Your task to perform on an android device: change keyboard looks Image 0: 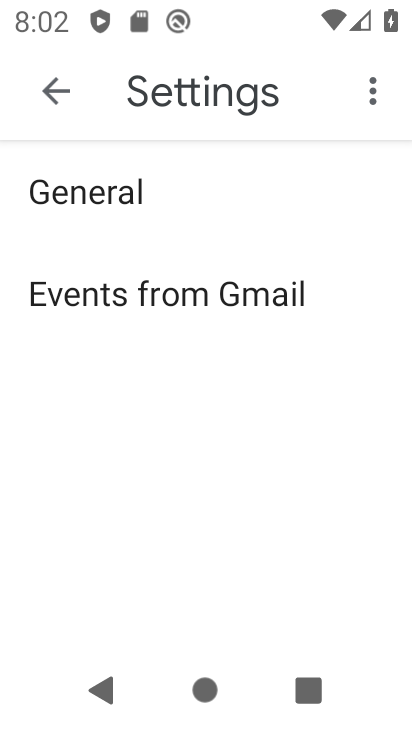
Step 0: press back button
Your task to perform on an android device: change keyboard looks Image 1: 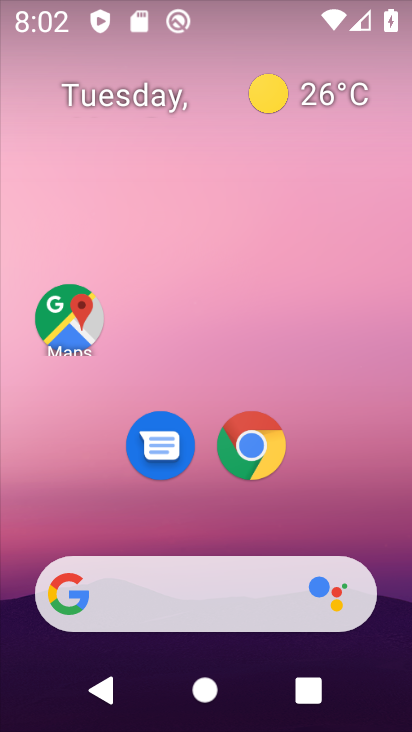
Step 1: drag from (323, 509) to (298, 192)
Your task to perform on an android device: change keyboard looks Image 2: 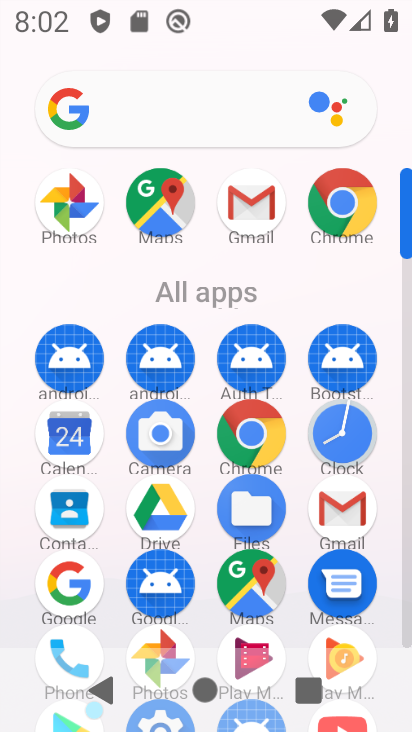
Step 2: drag from (116, 483) to (128, 290)
Your task to perform on an android device: change keyboard looks Image 3: 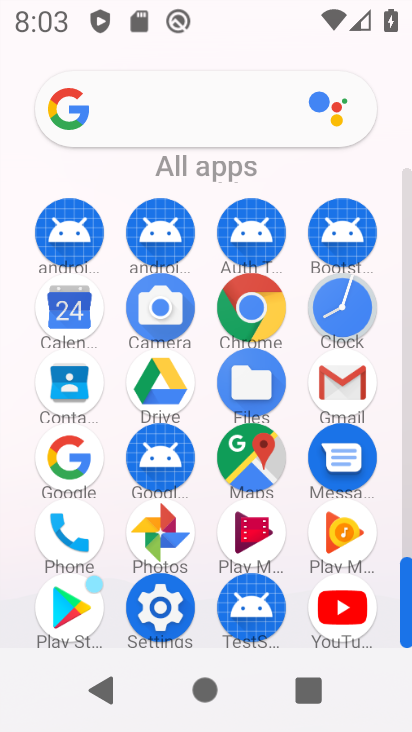
Step 3: click (161, 607)
Your task to perform on an android device: change keyboard looks Image 4: 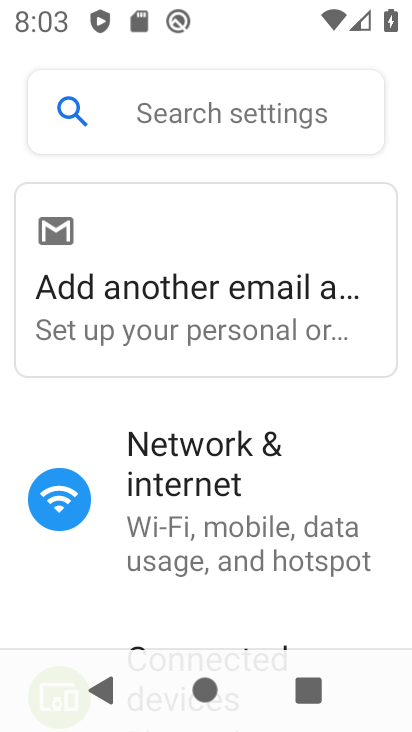
Step 4: drag from (302, 500) to (289, 382)
Your task to perform on an android device: change keyboard looks Image 5: 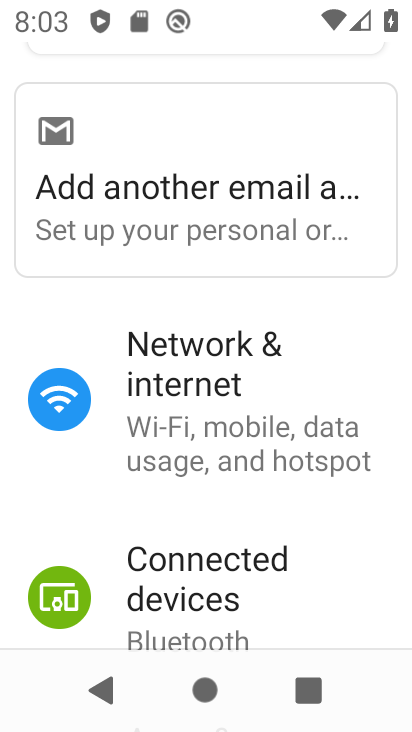
Step 5: drag from (206, 504) to (259, 383)
Your task to perform on an android device: change keyboard looks Image 6: 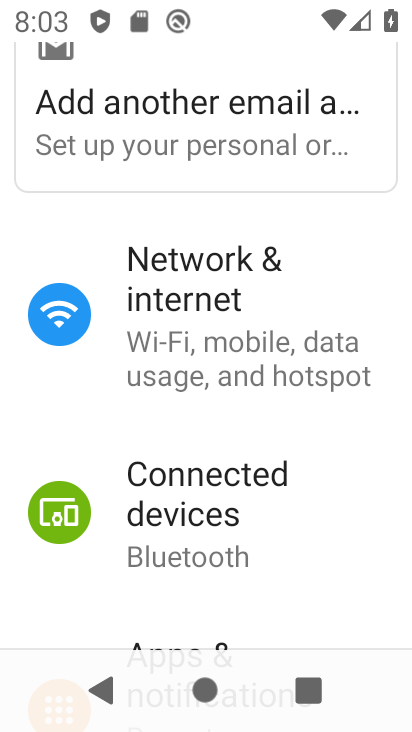
Step 6: drag from (259, 550) to (282, 408)
Your task to perform on an android device: change keyboard looks Image 7: 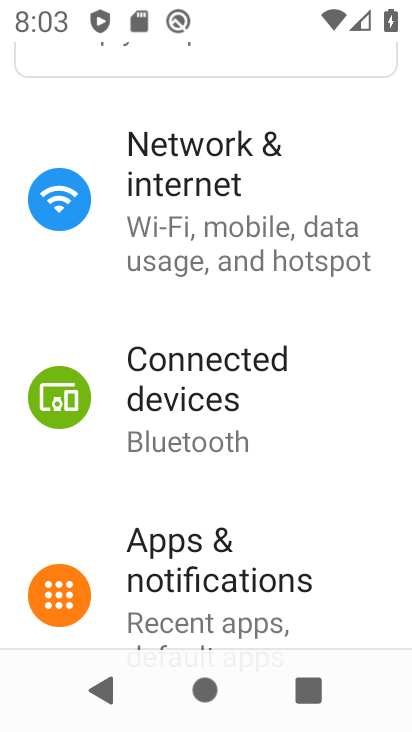
Step 7: drag from (182, 491) to (242, 382)
Your task to perform on an android device: change keyboard looks Image 8: 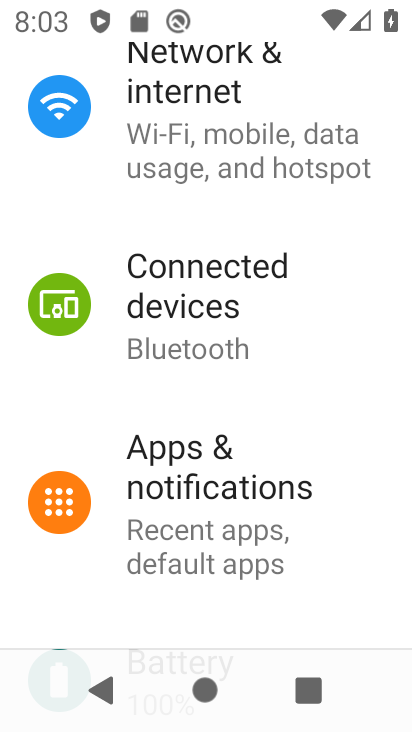
Step 8: drag from (178, 597) to (292, 465)
Your task to perform on an android device: change keyboard looks Image 9: 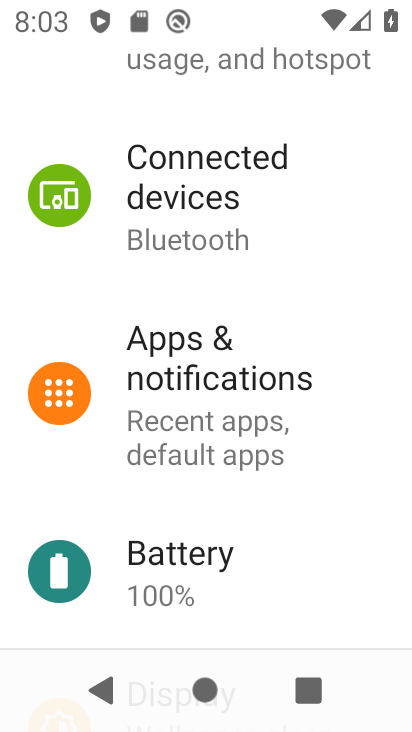
Step 9: drag from (186, 512) to (309, 375)
Your task to perform on an android device: change keyboard looks Image 10: 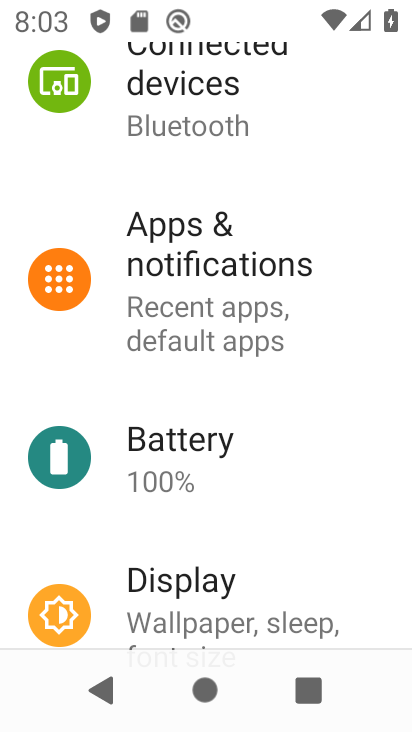
Step 10: drag from (183, 537) to (309, 376)
Your task to perform on an android device: change keyboard looks Image 11: 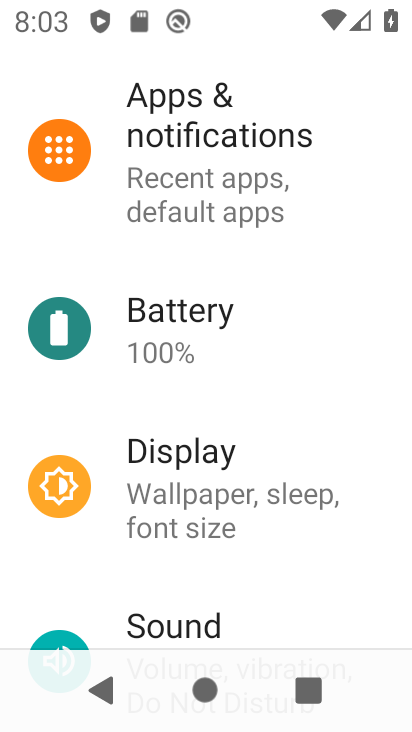
Step 11: drag from (173, 562) to (253, 465)
Your task to perform on an android device: change keyboard looks Image 12: 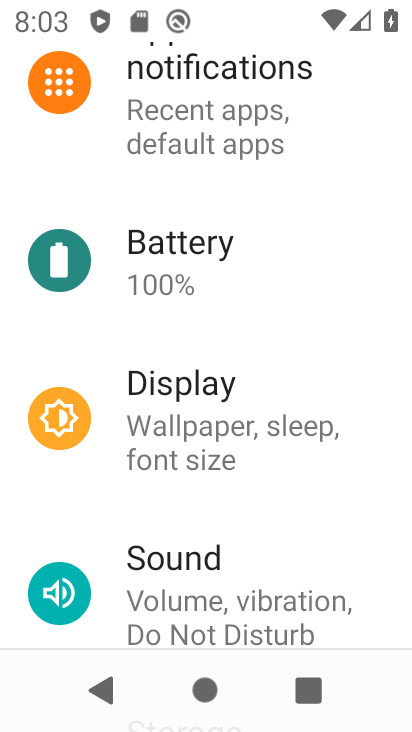
Step 12: drag from (189, 526) to (282, 382)
Your task to perform on an android device: change keyboard looks Image 13: 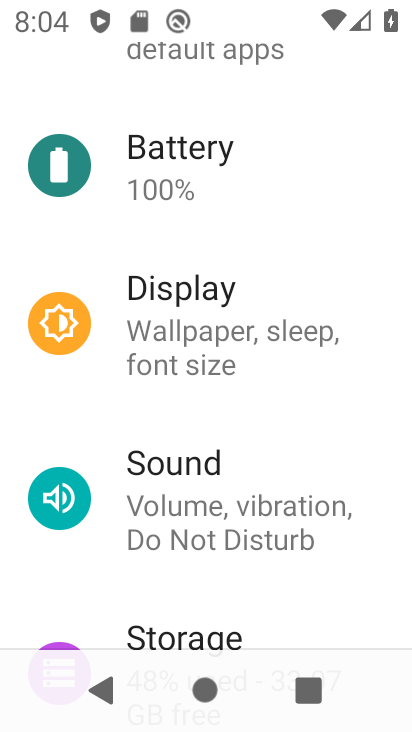
Step 13: drag from (180, 583) to (284, 448)
Your task to perform on an android device: change keyboard looks Image 14: 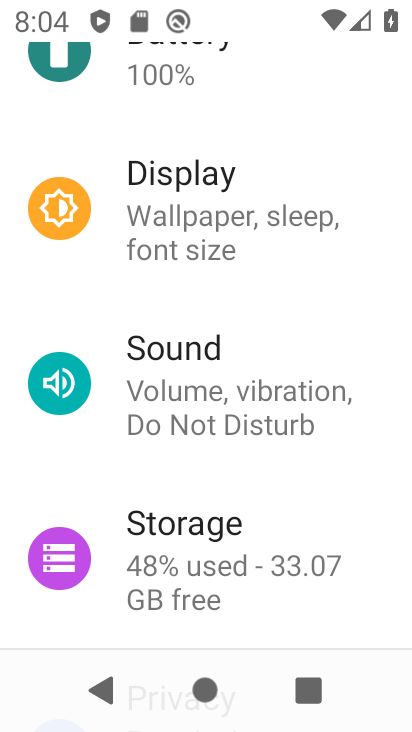
Step 14: drag from (245, 605) to (279, 448)
Your task to perform on an android device: change keyboard looks Image 15: 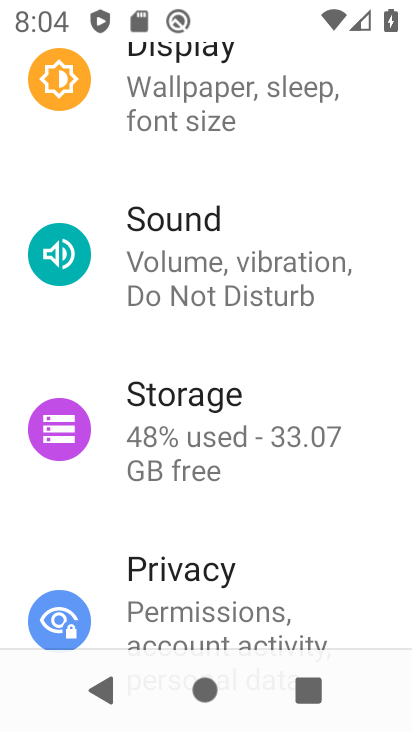
Step 15: drag from (186, 522) to (302, 382)
Your task to perform on an android device: change keyboard looks Image 16: 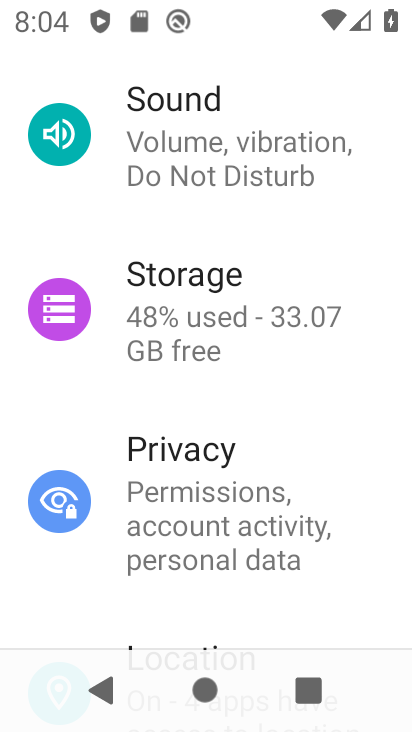
Step 16: drag from (174, 590) to (266, 451)
Your task to perform on an android device: change keyboard looks Image 17: 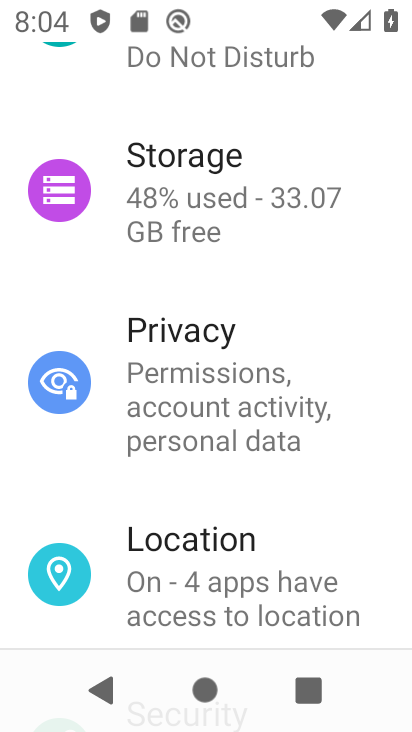
Step 17: drag from (156, 485) to (232, 367)
Your task to perform on an android device: change keyboard looks Image 18: 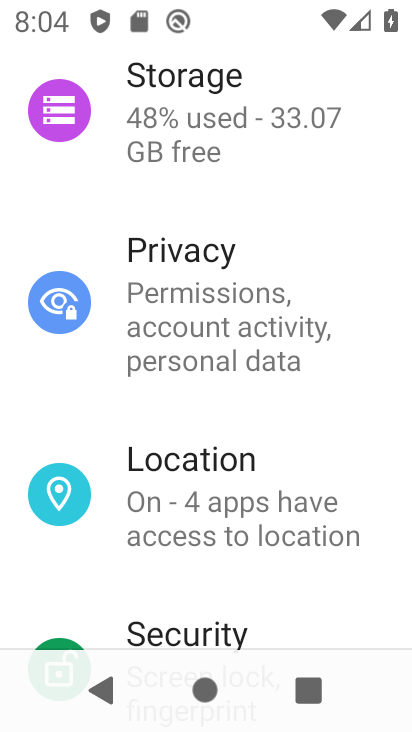
Step 18: drag from (210, 426) to (298, 313)
Your task to perform on an android device: change keyboard looks Image 19: 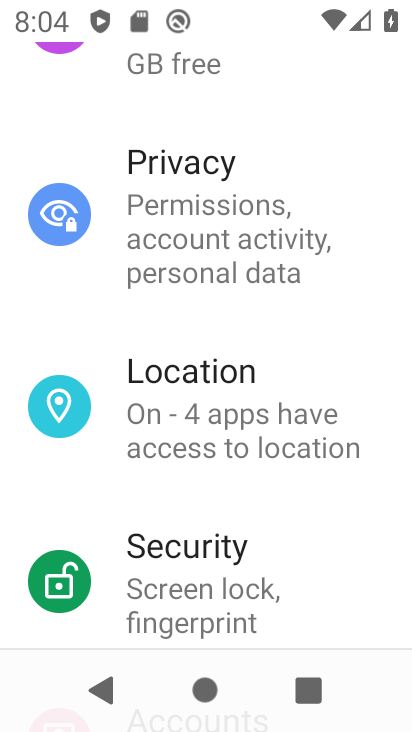
Step 19: drag from (171, 491) to (259, 376)
Your task to perform on an android device: change keyboard looks Image 20: 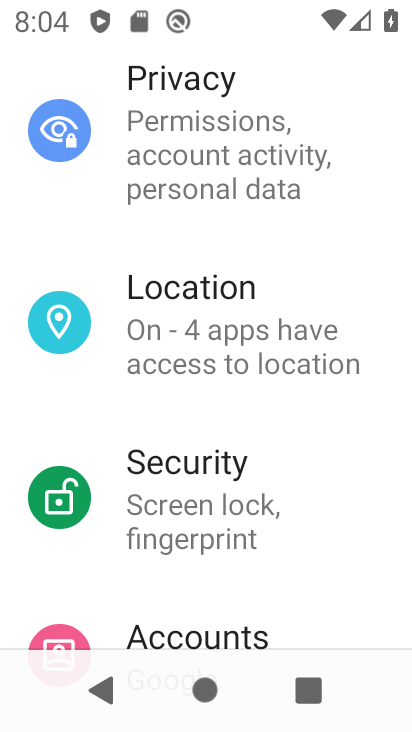
Step 20: drag from (189, 576) to (283, 453)
Your task to perform on an android device: change keyboard looks Image 21: 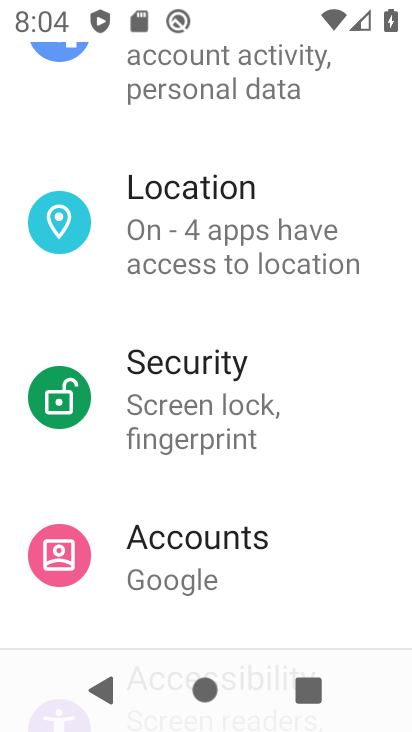
Step 21: drag from (192, 514) to (288, 404)
Your task to perform on an android device: change keyboard looks Image 22: 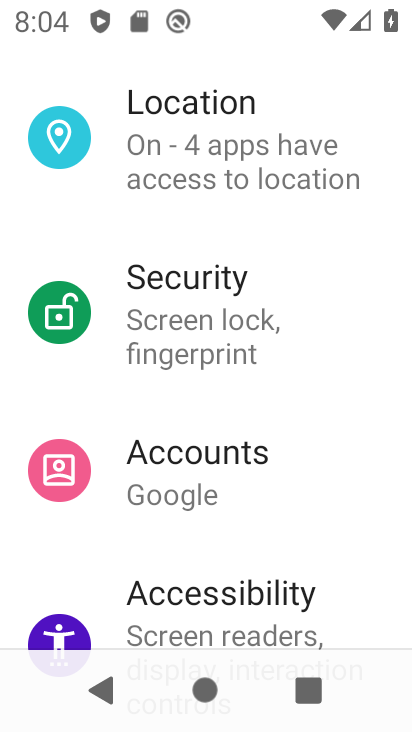
Step 22: drag from (157, 546) to (264, 386)
Your task to perform on an android device: change keyboard looks Image 23: 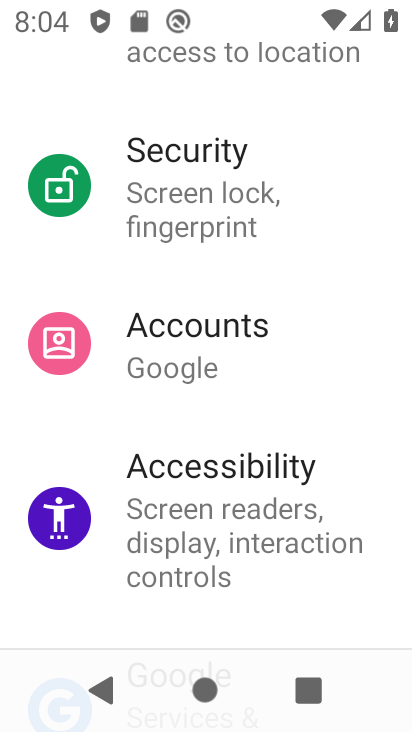
Step 23: drag from (157, 590) to (263, 451)
Your task to perform on an android device: change keyboard looks Image 24: 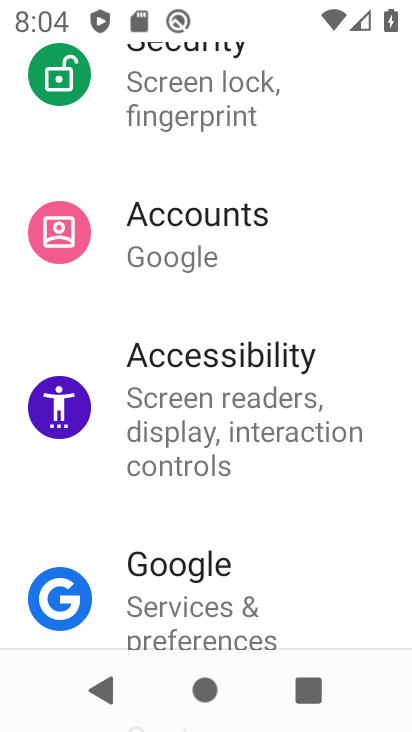
Step 24: drag from (152, 524) to (257, 407)
Your task to perform on an android device: change keyboard looks Image 25: 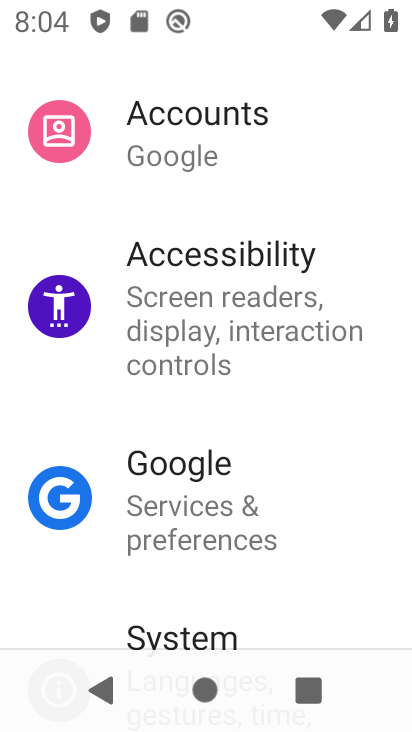
Step 25: drag from (124, 581) to (251, 438)
Your task to perform on an android device: change keyboard looks Image 26: 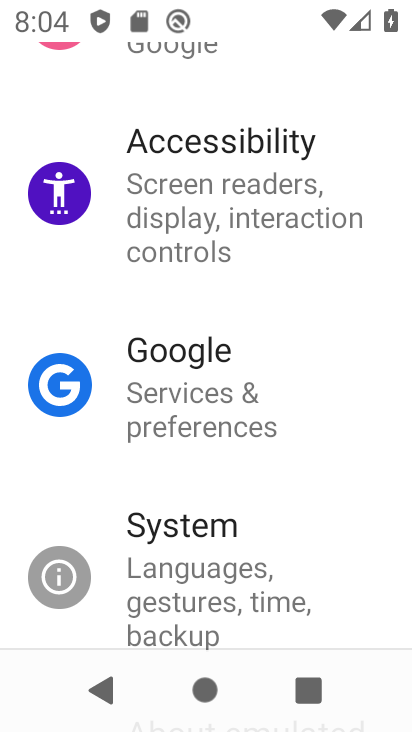
Step 26: click (197, 523)
Your task to perform on an android device: change keyboard looks Image 27: 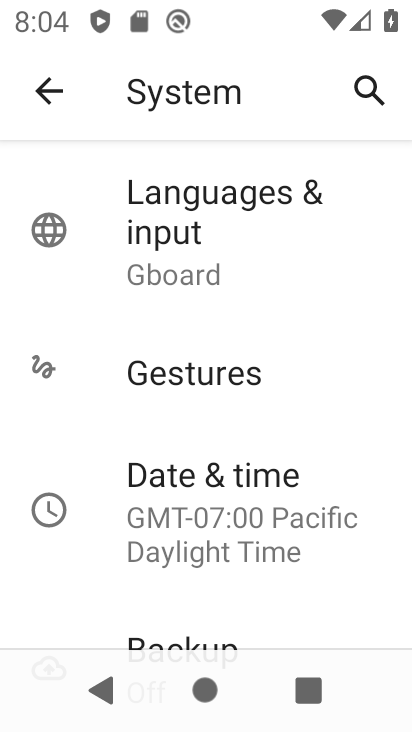
Step 27: click (235, 213)
Your task to perform on an android device: change keyboard looks Image 28: 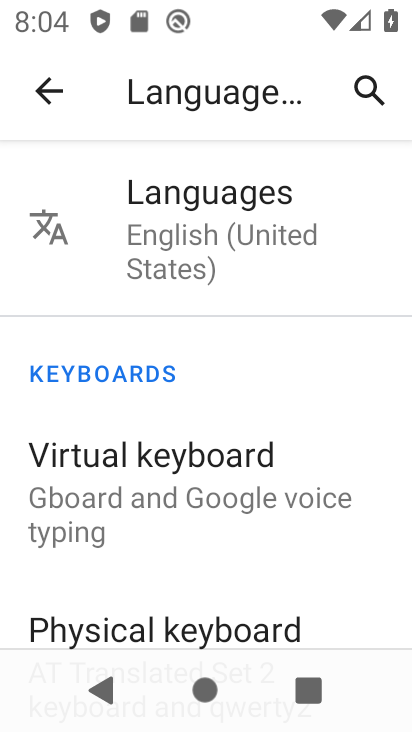
Step 28: click (159, 457)
Your task to perform on an android device: change keyboard looks Image 29: 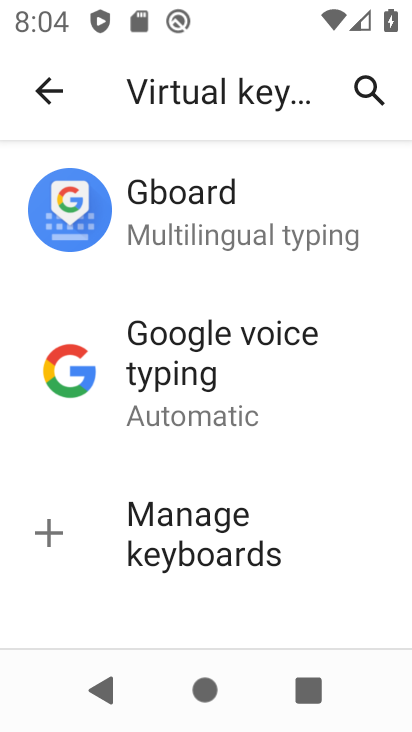
Step 29: click (206, 216)
Your task to perform on an android device: change keyboard looks Image 30: 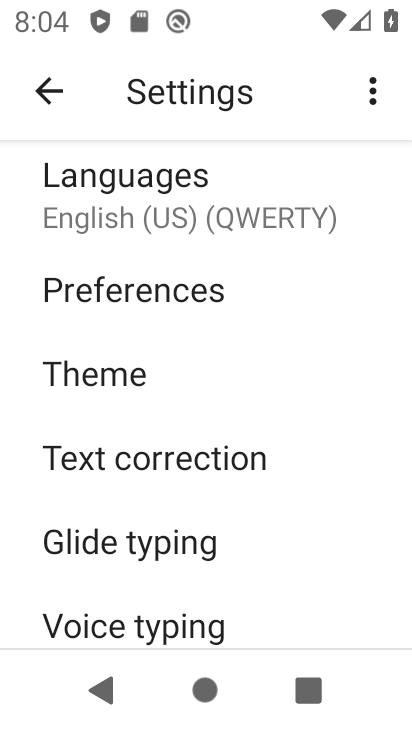
Step 30: click (107, 379)
Your task to perform on an android device: change keyboard looks Image 31: 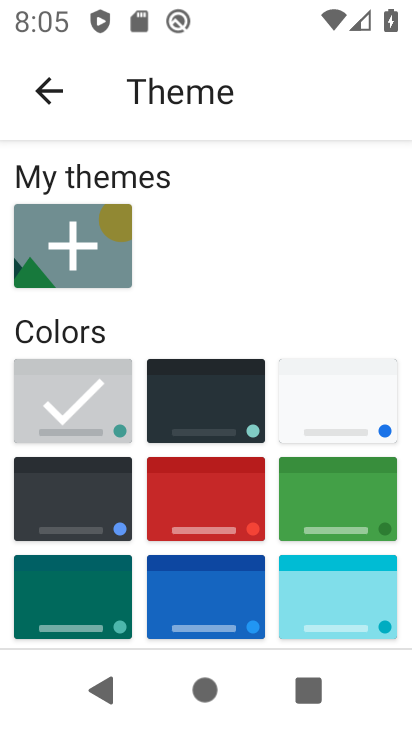
Step 31: click (211, 474)
Your task to perform on an android device: change keyboard looks Image 32: 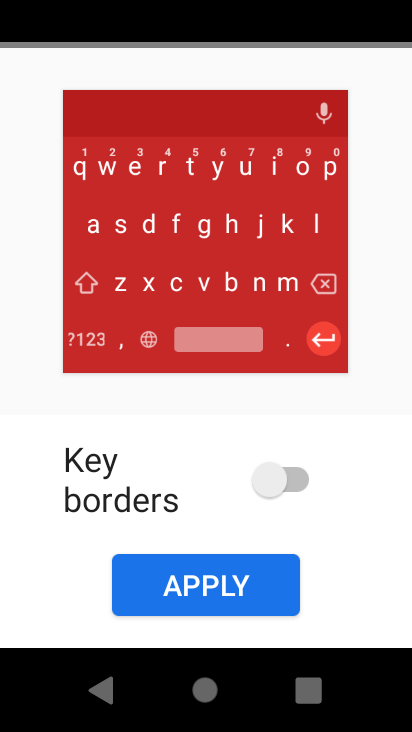
Step 32: click (289, 479)
Your task to perform on an android device: change keyboard looks Image 33: 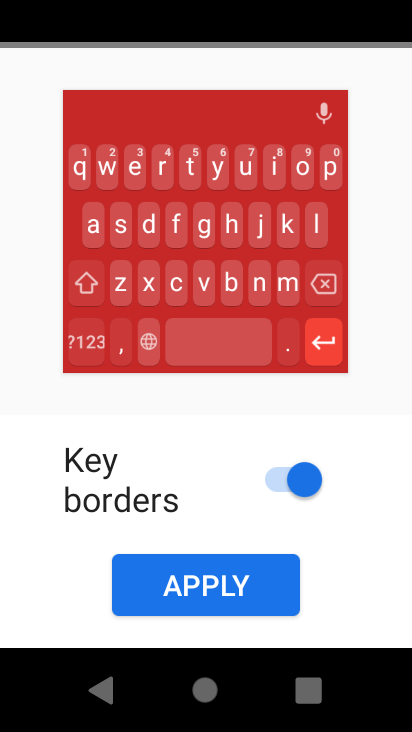
Step 33: click (185, 587)
Your task to perform on an android device: change keyboard looks Image 34: 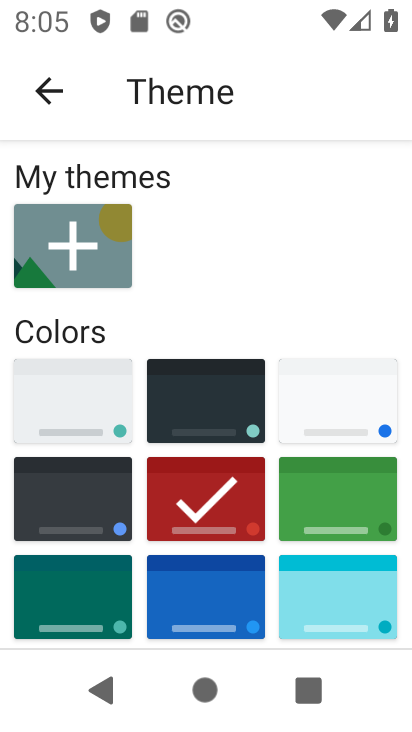
Step 34: task complete